Your task to perform on an android device: make emails show in primary in the gmail app Image 0: 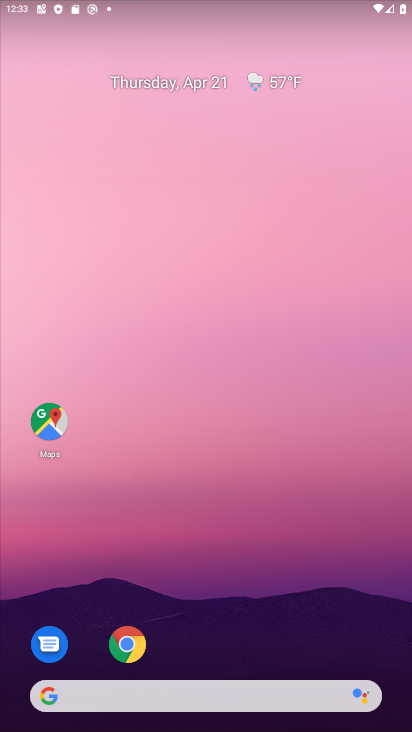
Step 0: drag from (203, 672) to (157, 10)
Your task to perform on an android device: make emails show in primary in the gmail app Image 1: 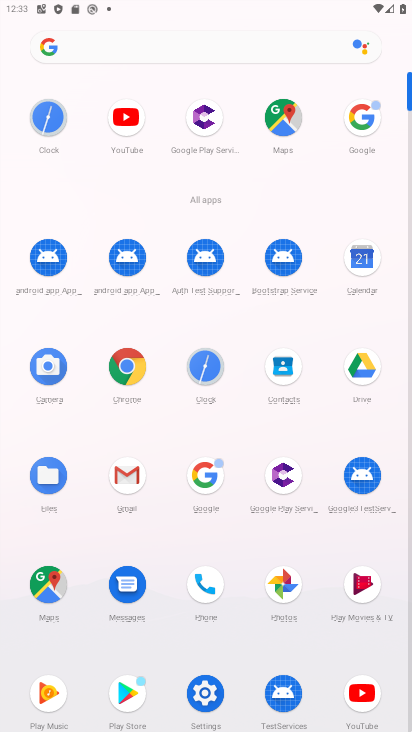
Step 1: click (123, 482)
Your task to perform on an android device: make emails show in primary in the gmail app Image 2: 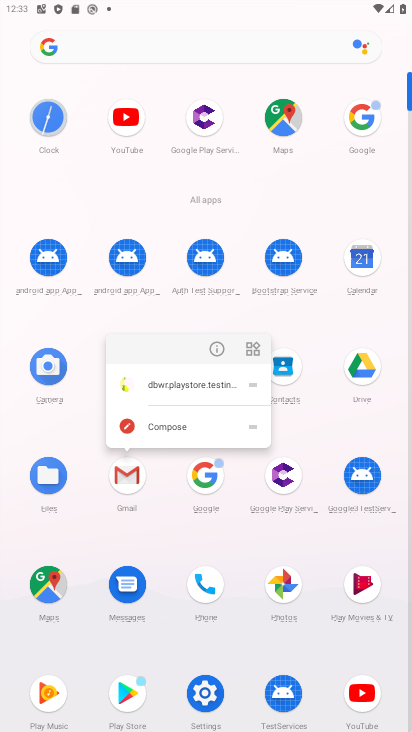
Step 2: click (125, 471)
Your task to perform on an android device: make emails show in primary in the gmail app Image 3: 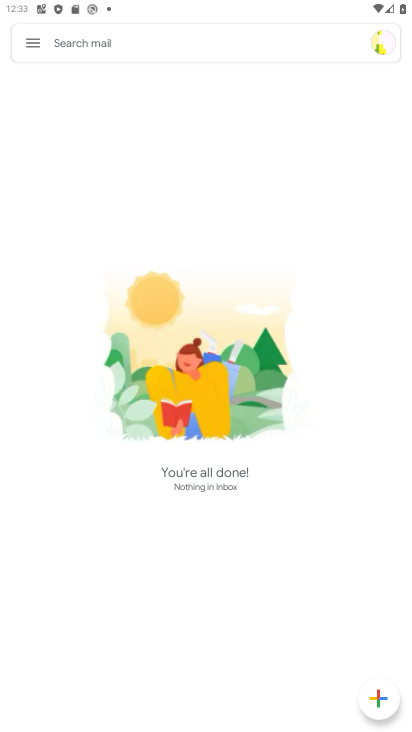
Step 3: click (30, 39)
Your task to perform on an android device: make emails show in primary in the gmail app Image 4: 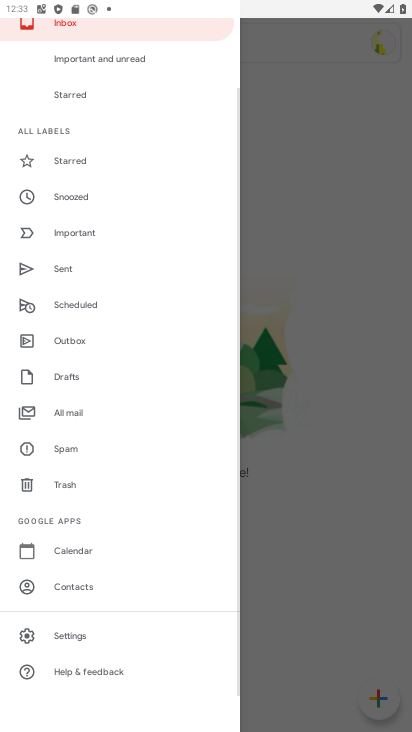
Step 4: click (68, 644)
Your task to perform on an android device: make emails show in primary in the gmail app Image 5: 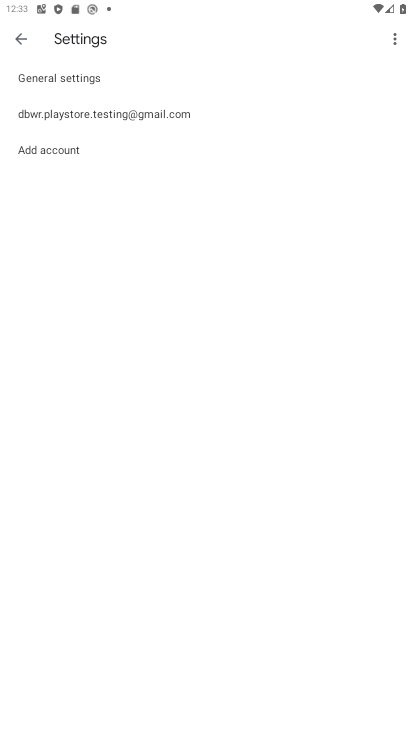
Step 5: click (113, 104)
Your task to perform on an android device: make emails show in primary in the gmail app Image 6: 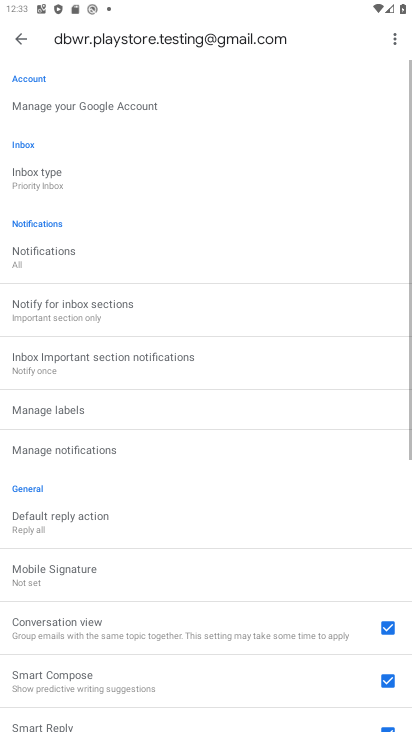
Step 6: click (35, 181)
Your task to perform on an android device: make emails show in primary in the gmail app Image 7: 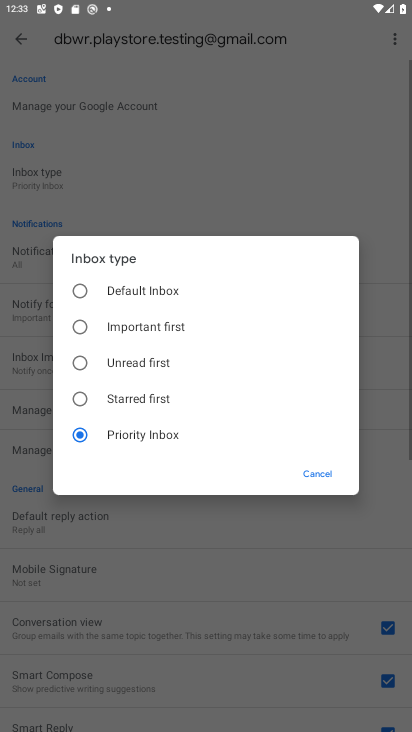
Step 7: click (125, 293)
Your task to perform on an android device: make emails show in primary in the gmail app Image 8: 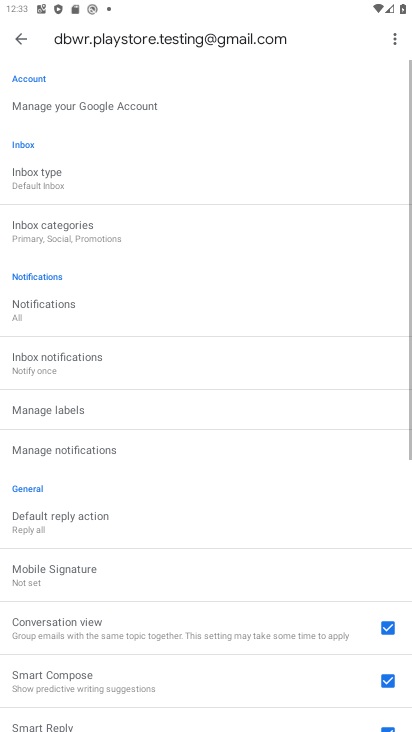
Step 8: click (12, 33)
Your task to perform on an android device: make emails show in primary in the gmail app Image 9: 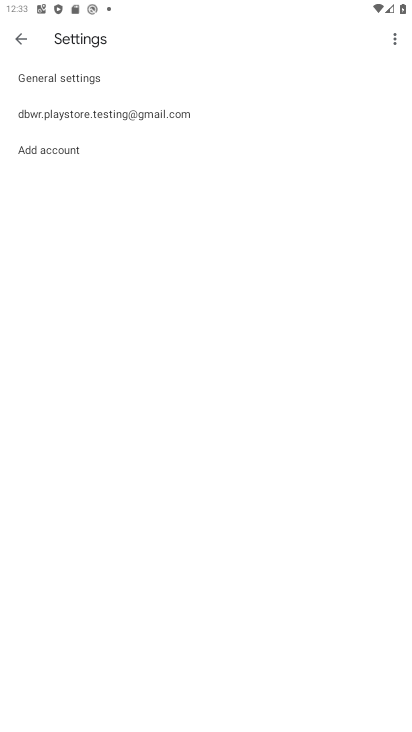
Step 9: click (12, 33)
Your task to perform on an android device: make emails show in primary in the gmail app Image 10: 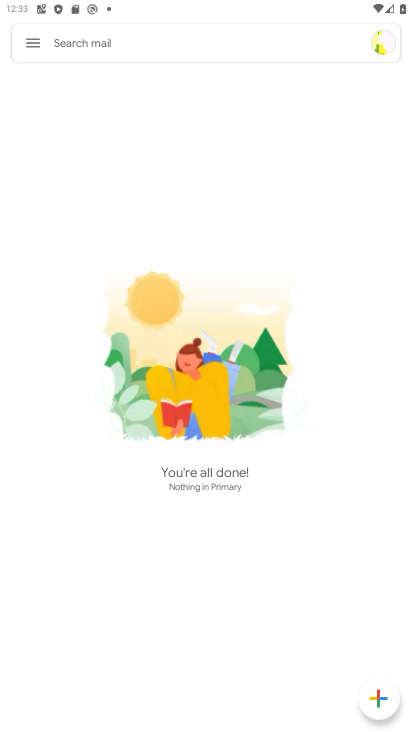
Step 10: task complete